Your task to perform on an android device: turn on javascript in the chrome app Image 0: 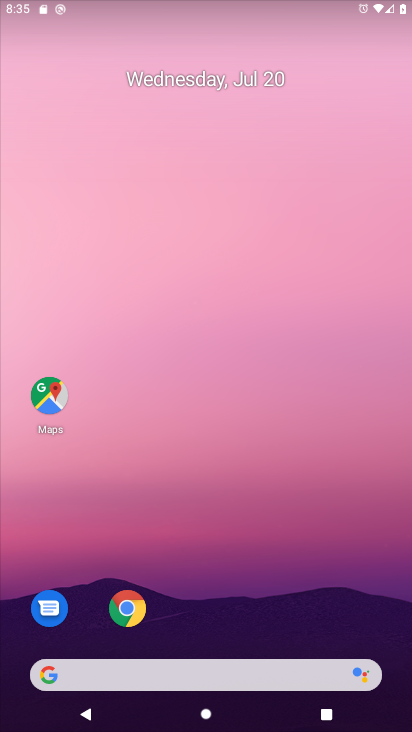
Step 0: drag from (244, 635) to (240, 172)
Your task to perform on an android device: turn on javascript in the chrome app Image 1: 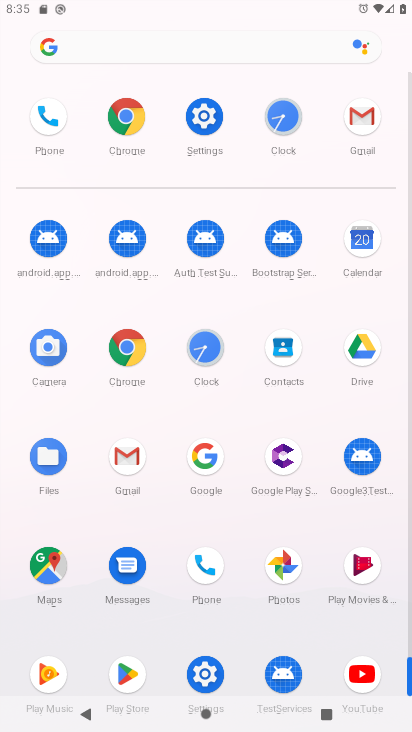
Step 1: click (128, 111)
Your task to perform on an android device: turn on javascript in the chrome app Image 2: 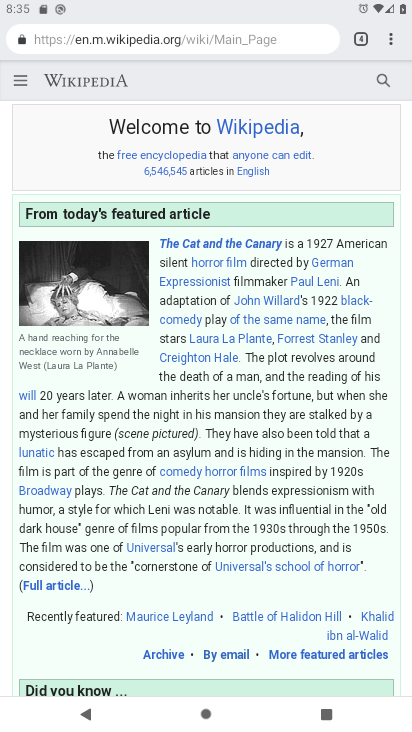
Step 2: click (389, 42)
Your task to perform on an android device: turn on javascript in the chrome app Image 3: 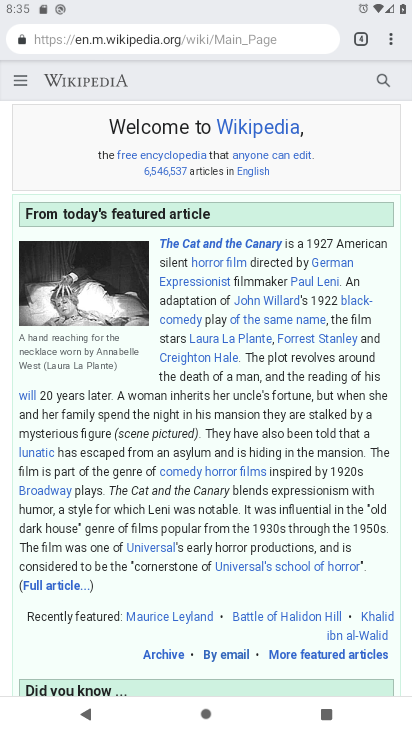
Step 3: click (393, 34)
Your task to perform on an android device: turn on javascript in the chrome app Image 4: 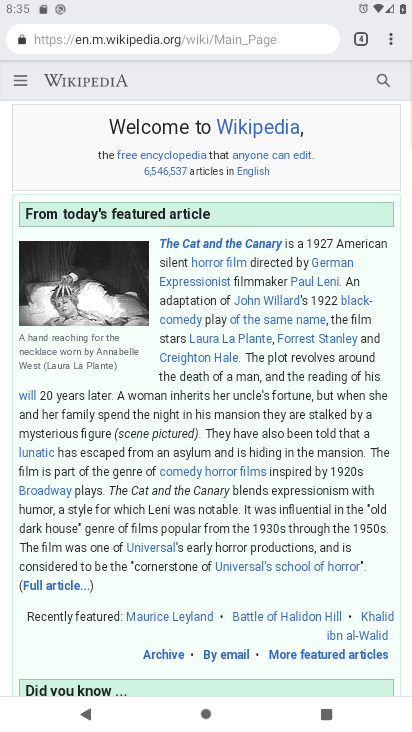
Step 4: click (393, 34)
Your task to perform on an android device: turn on javascript in the chrome app Image 5: 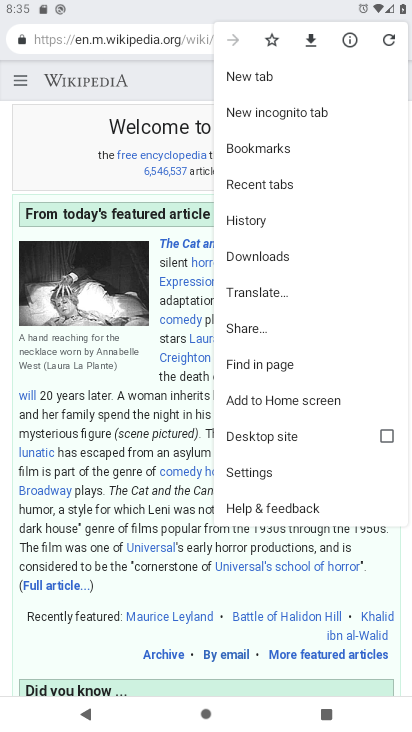
Step 5: click (259, 467)
Your task to perform on an android device: turn on javascript in the chrome app Image 6: 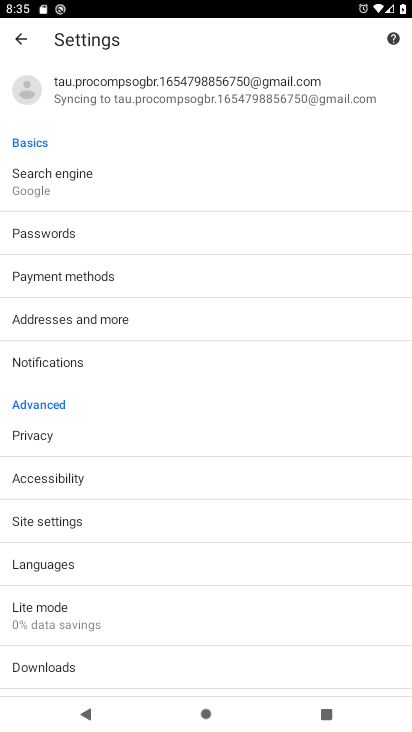
Step 6: click (80, 514)
Your task to perform on an android device: turn on javascript in the chrome app Image 7: 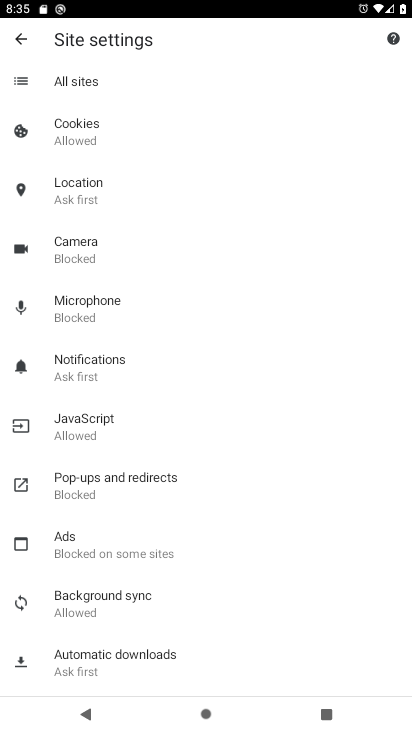
Step 7: click (148, 431)
Your task to perform on an android device: turn on javascript in the chrome app Image 8: 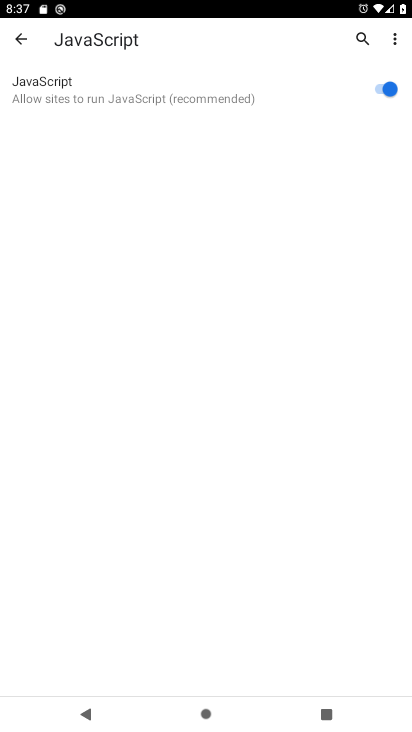
Step 8: task complete